Your task to perform on an android device: change notifications settings Image 0: 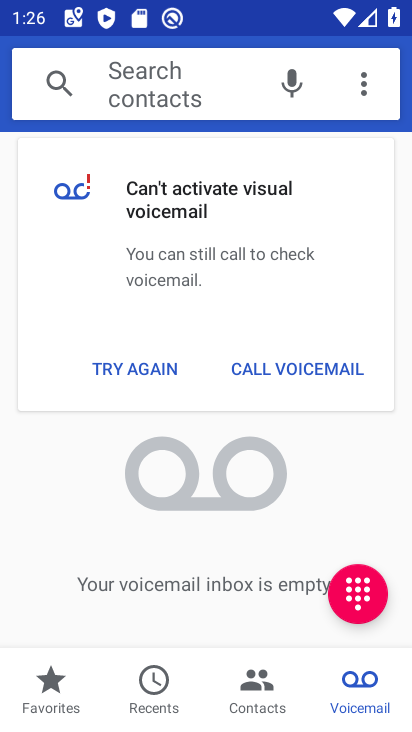
Step 0: press home button
Your task to perform on an android device: change notifications settings Image 1: 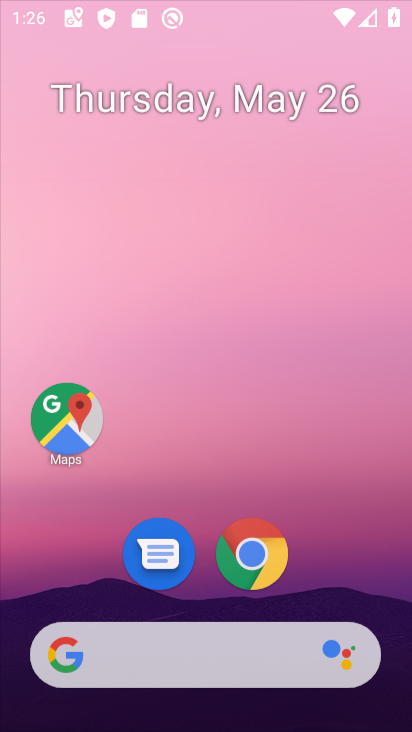
Step 1: press home button
Your task to perform on an android device: change notifications settings Image 2: 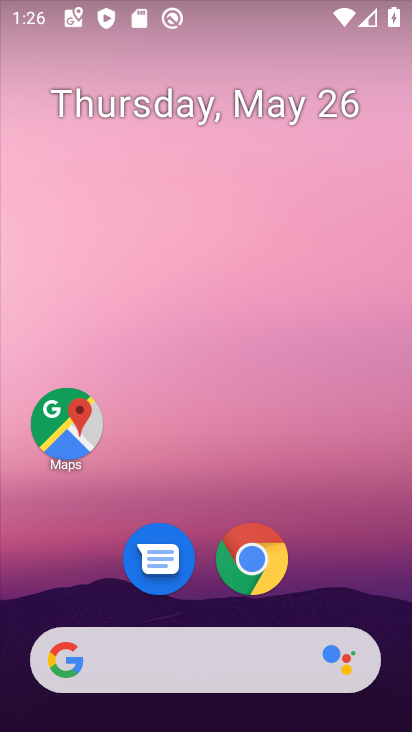
Step 2: drag from (154, 679) to (289, 38)
Your task to perform on an android device: change notifications settings Image 3: 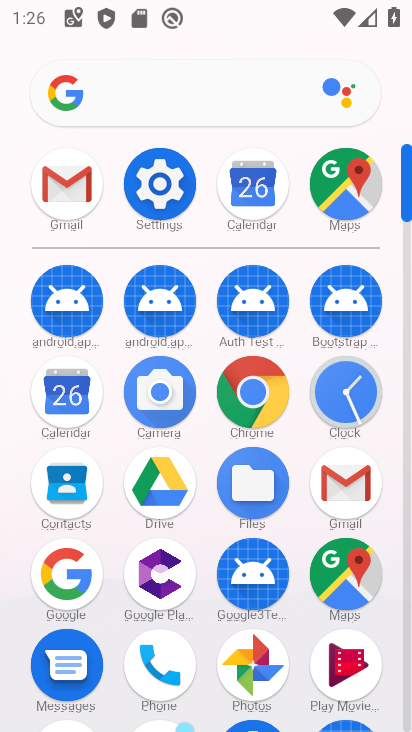
Step 3: click (155, 191)
Your task to perform on an android device: change notifications settings Image 4: 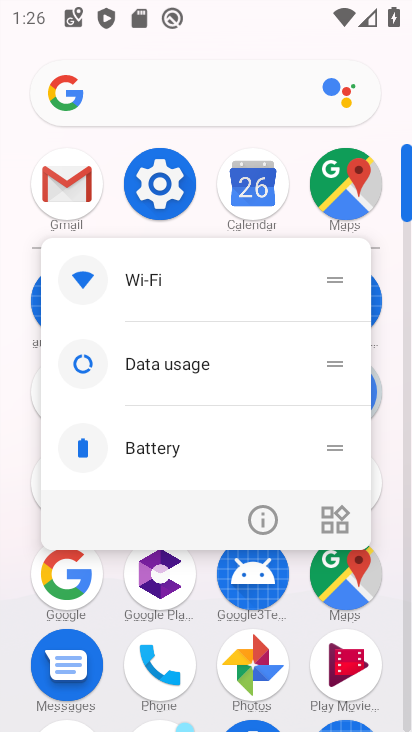
Step 4: click (168, 210)
Your task to perform on an android device: change notifications settings Image 5: 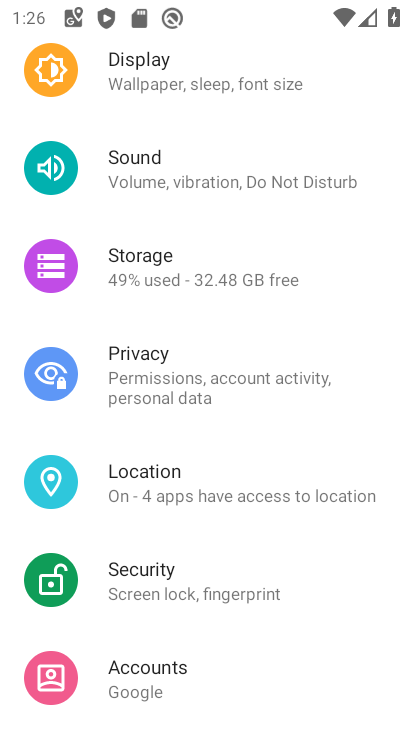
Step 5: drag from (257, 609) to (337, 196)
Your task to perform on an android device: change notifications settings Image 6: 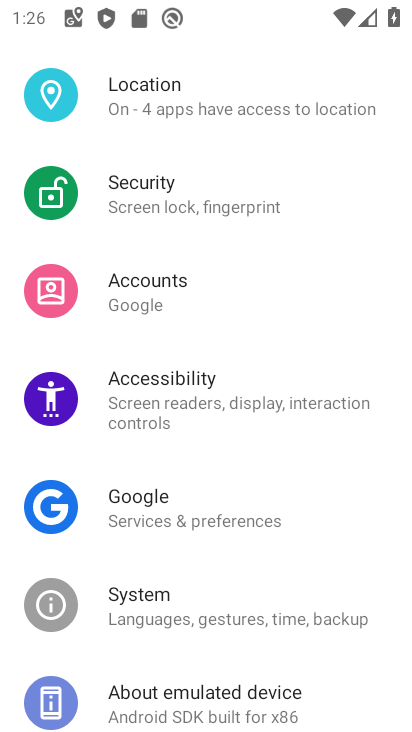
Step 6: drag from (298, 129) to (261, 694)
Your task to perform on an android device: change notifications settings Image 7: 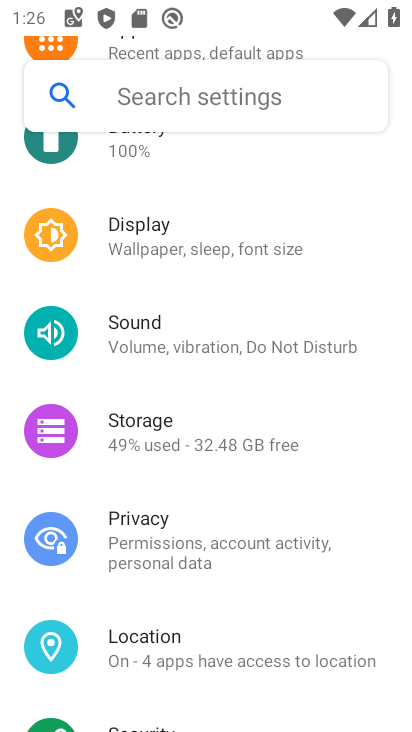
Step 7: drag from (292, 251) to (257, 713)
Your task to perform on an android device: change notifications settings Image 8: 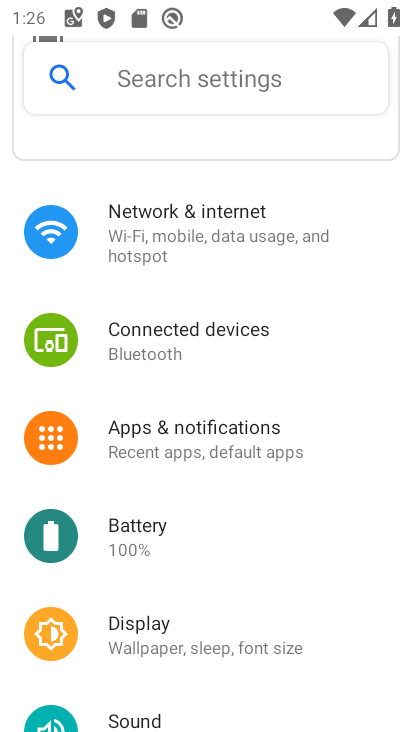
Step 8: click (234, 440)
Your task to perform on an android device: change notifications settings Image 9: 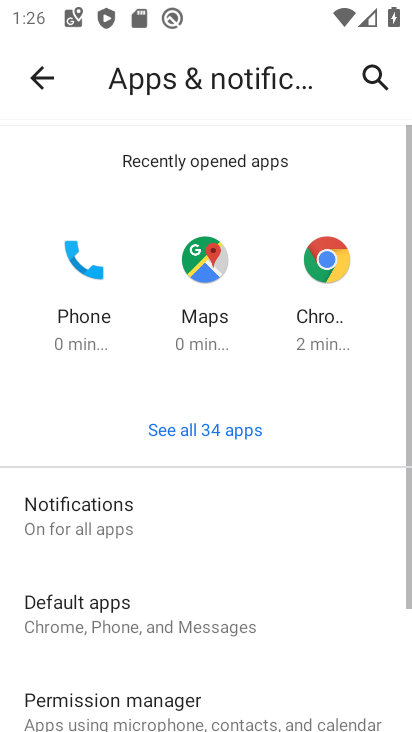
Step 9: click (62, 524)
Your task to perform on an android device: change notifications settings Image 10: 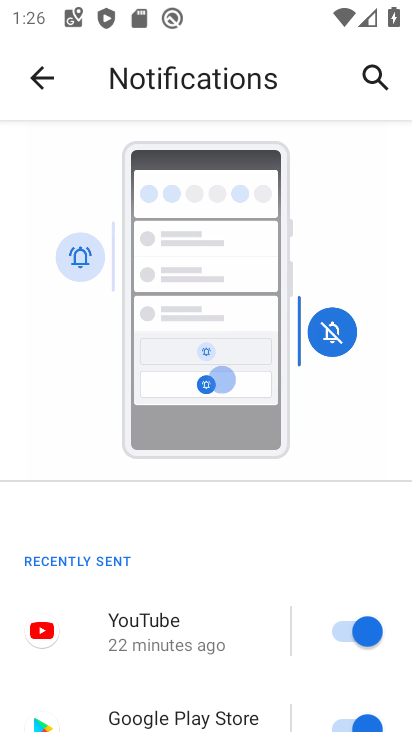
Step 10: drag from (220, 644) to (361, 314)
Your task to perform on an android device: change notifications settings Image 11: 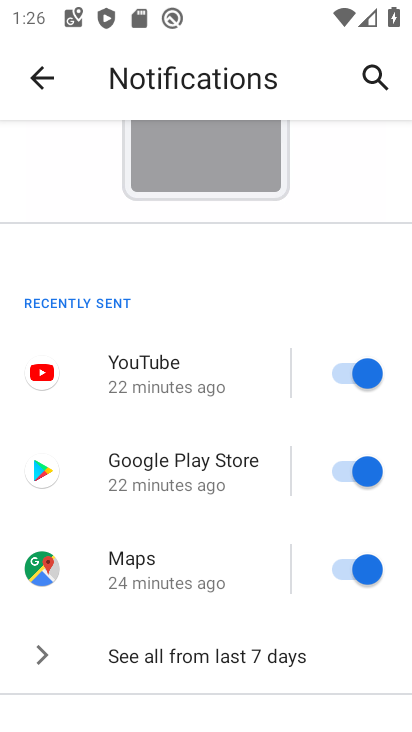
Step 11: click (349, 375)
Your task to perform on an android device: change notifications settings Image 12: 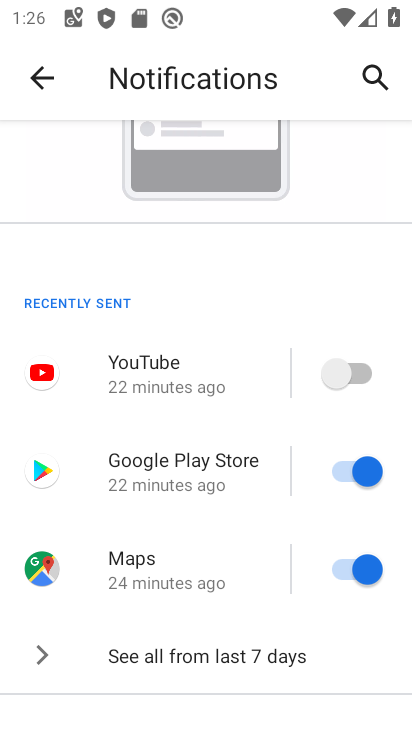
Step 12: task complete